Your task to perform on an android device: change the clock display to analog Image 0: 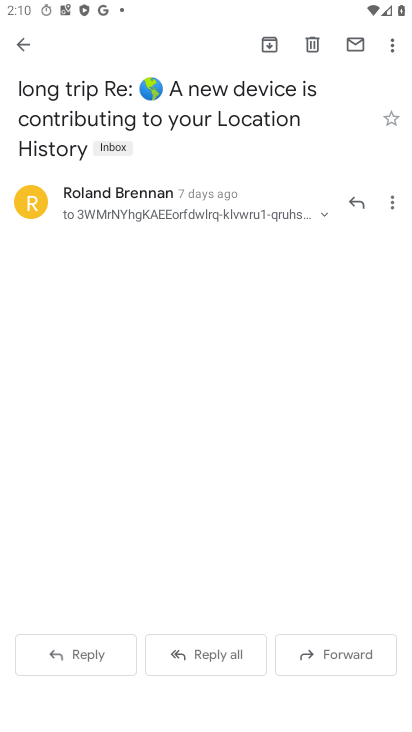
Step 0: press home button
Your task to perform on an android device: change the clock display to analog Image 1: 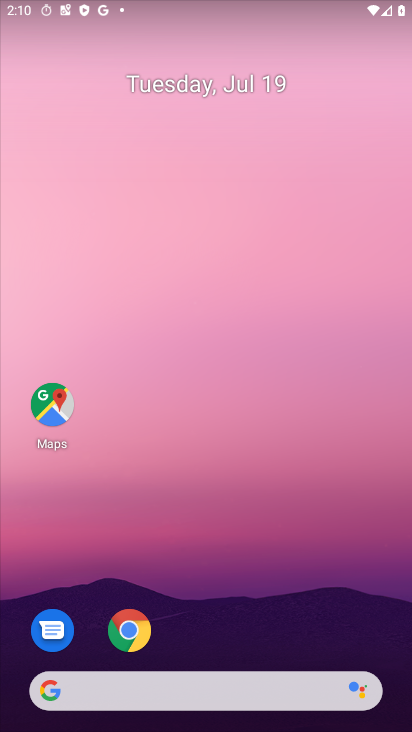
Step 1: drag from (322, 551) to (354, 10)
Your task to perform on an android device: change the clock display to analog Image 2: 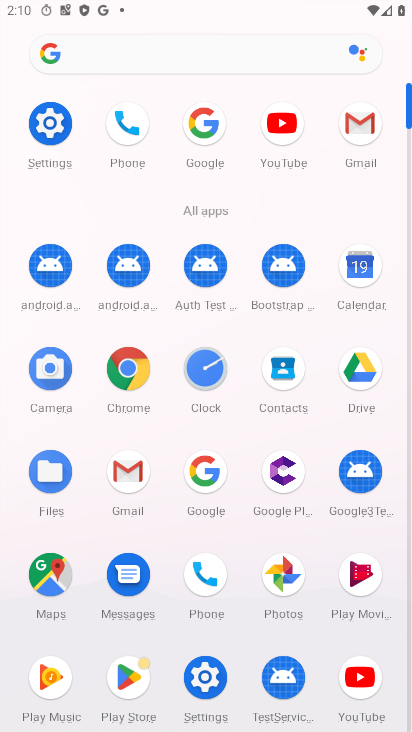
Step 2: click (195, 372)
Your task to perform on an android device: change the clock display to analog Image 3: 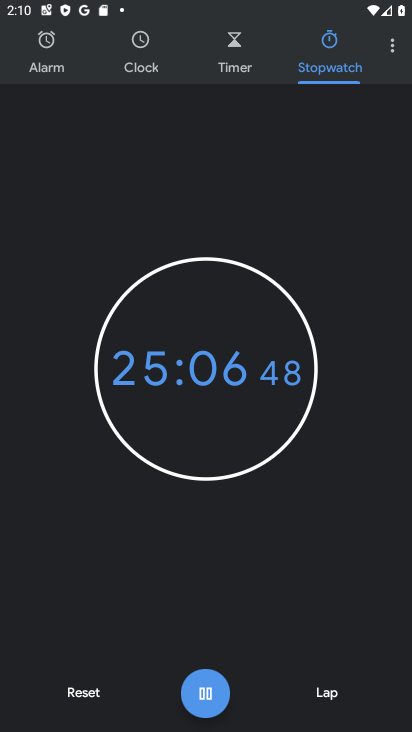
Step 3: click (391, 54)
Your task to perform on an android device: change the clock display to analog Image 4: 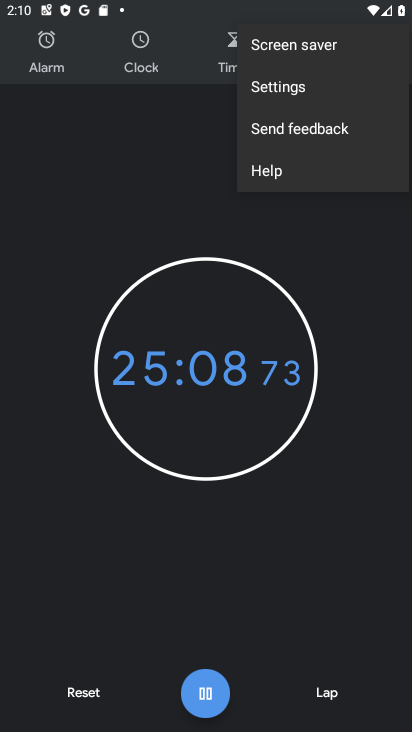
Step 4: click (297, 95)
Your task to perform on an android device: change the clock display to analog Image 5: 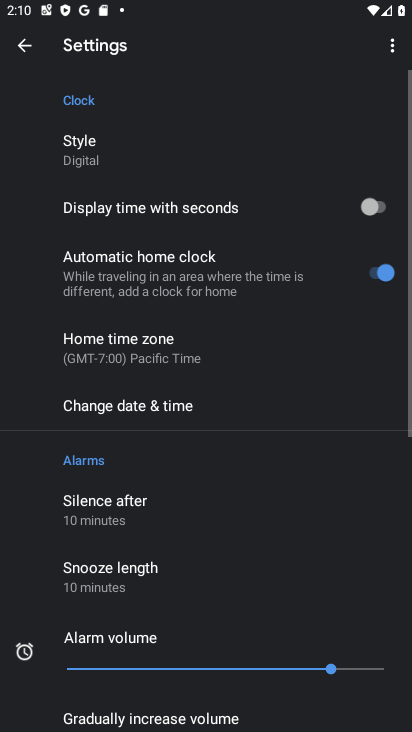
Step 5: click (95, 149)
Your task to perform on an android device: change the clock display to analog Image 6: 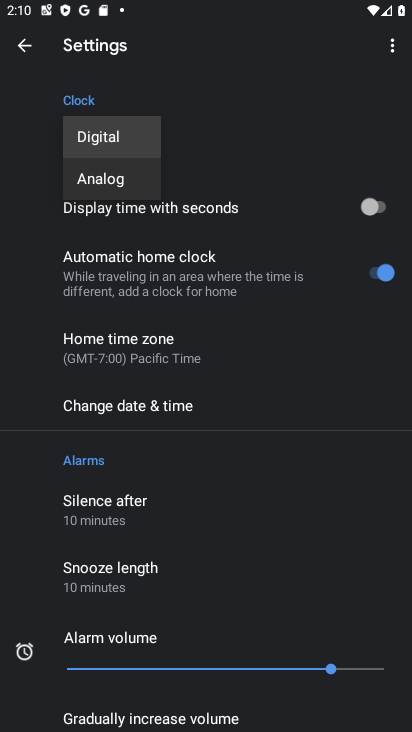
Step 6: click (116, 184)
Your task to perform on an android device: change the clock display to analog Image 7: 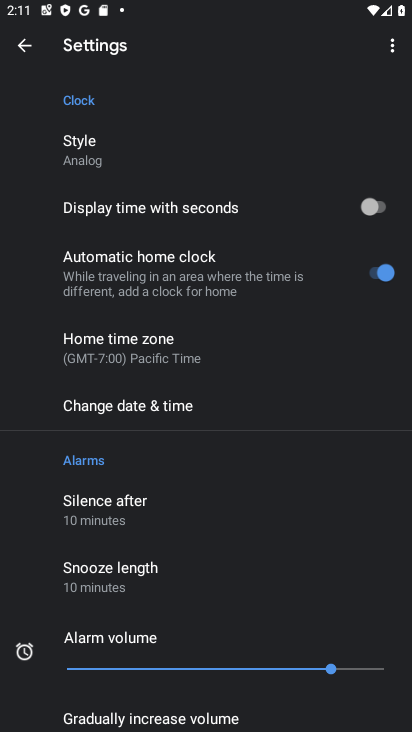
Step 7: task complete